Your task to perform on an android device: Search for the best fantasy books on Goodreads. Image 0: 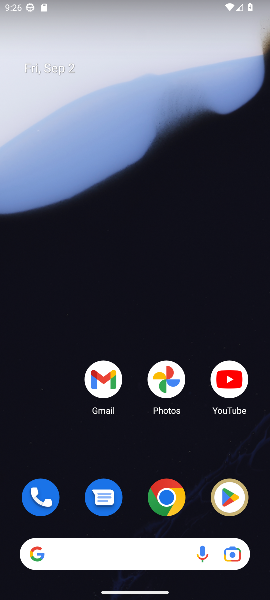
Step 0: drag from (140, 505) to (15, 4)
Your task to perform on an android device: Search for the best fantasy books on Goodreads. Image 1: 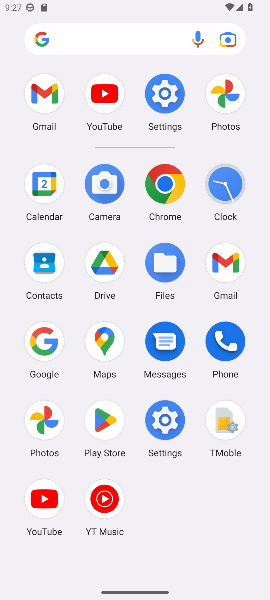
Step 1: click (31, 358)
Your task to perform on an android device: Search for the best fantasy books on Goodreads. Image 2: 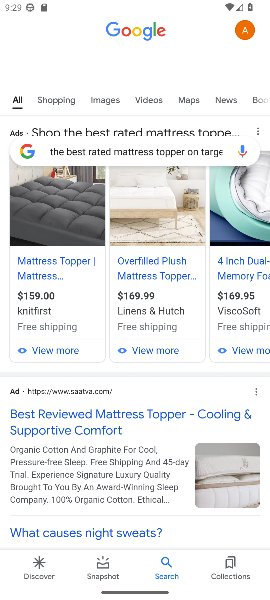
Step 2: press home button
Your task to perform on an android device: Search for the best fantasy books on Goodreads. Image 3: 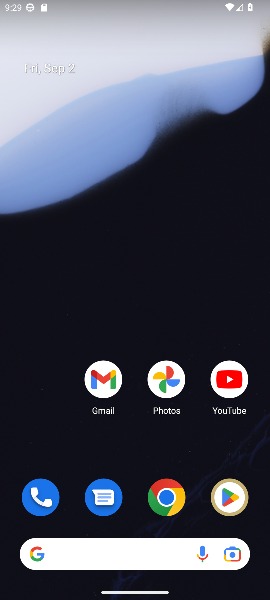
Step 3: drag from (118, 127) to (118, 37)
Your task to perform on an android device: Search for the best fantasy books on Goodreads. Image 4: 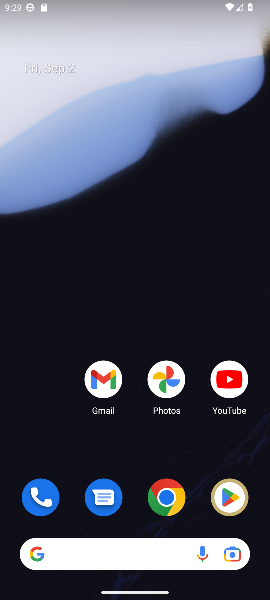
Step 4: click (137, 288)
Your task to perform on an android device: Search for the best fantasy books on Goodreads. Image 5: 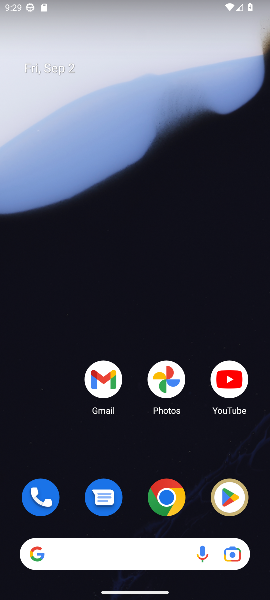
Step 5: click (139, 209)
Your task to perform on an android device: Search for the best fantasy books on Goodreads. Image 6: 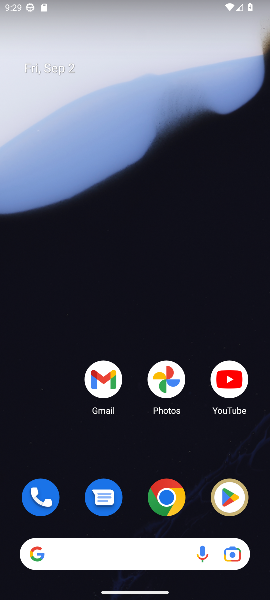
Step 6: click (136, 186)
Your task to perform on an android device: Search for the best fantasy books on Goodreads. Image 7: 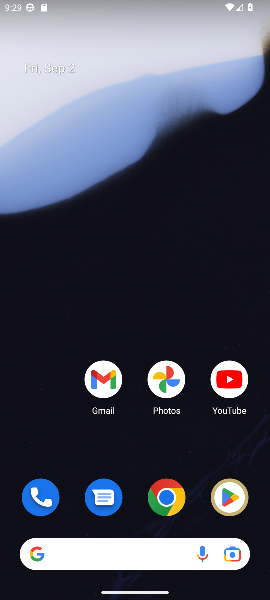
Step 7: click (129, 557)
Your task to perform on an android device: Search for the best fantasy books on Goodreads. Image 8: 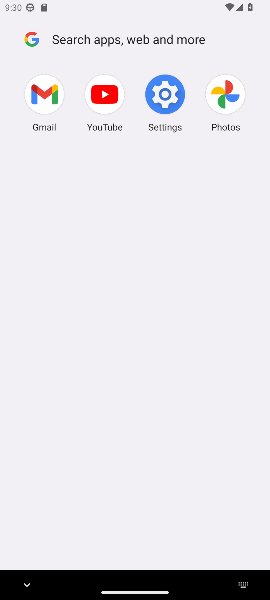
Step 8: type " the best fantasy books on Goodreads."
Your task to perform on an android device: Search for the best fantasy books on Goodreads. Image 9: 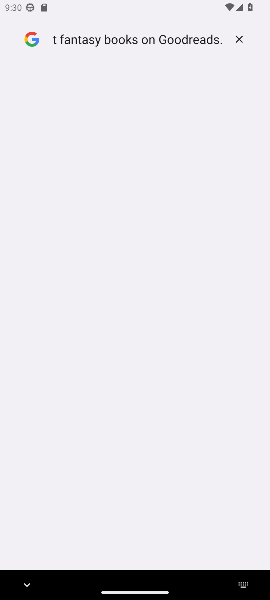
Step 9: task complete